Your task to perform on an android device: check storage Image 0: 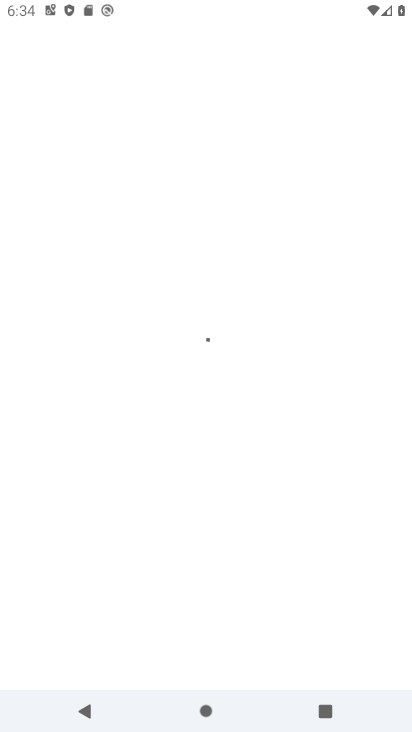
Step 0: press home button
Your task to perform on an android device: check storage Image 1: 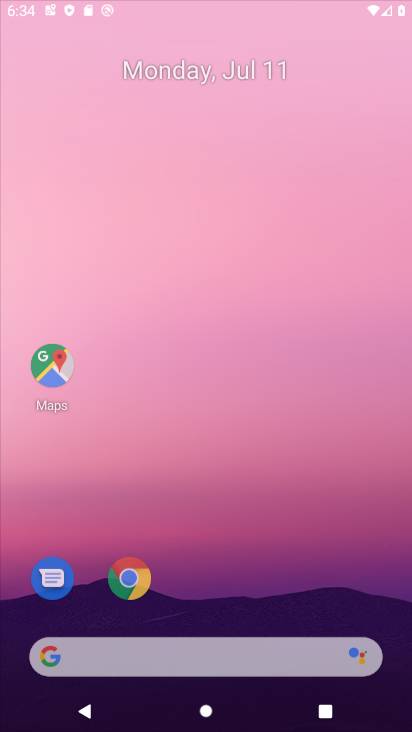
Step 1: drag from (400, 624) to (266, 95)
Your task to perform on an android device: check storage Image 2: 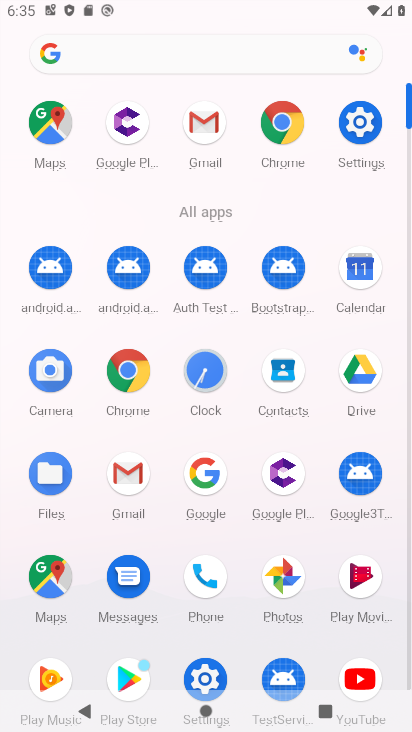
Step 2: click (369, 125)
Your task to perform on an android device: check storage Image 3: 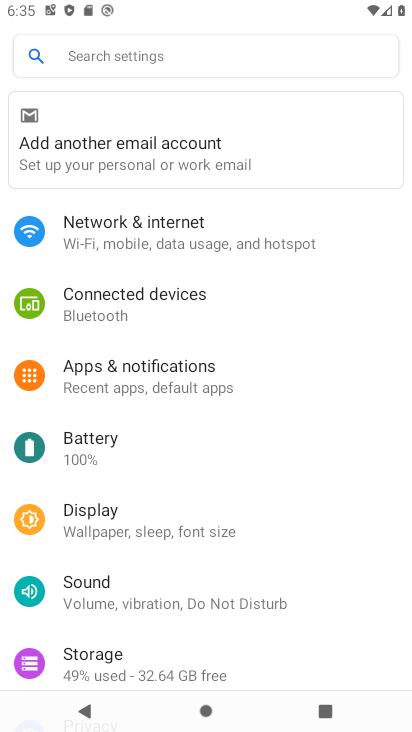
Step 3: click (132, 658)
Your task to perform on an android device: check storage Image 4: 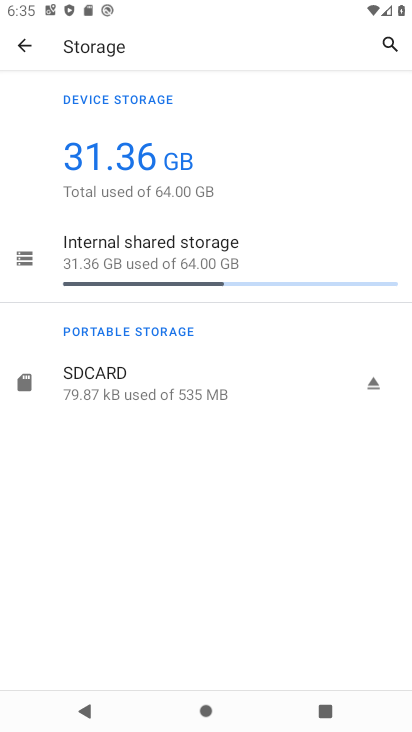
Step 4: click (195, 266)
Your task to perform on an android device: check storage Image 5: 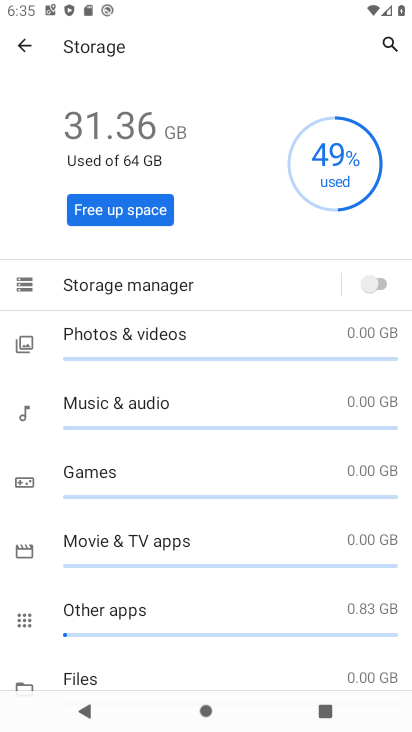
Step 5: task complete